Your task to perform on an android device: clear history in the chrome app Image 0: 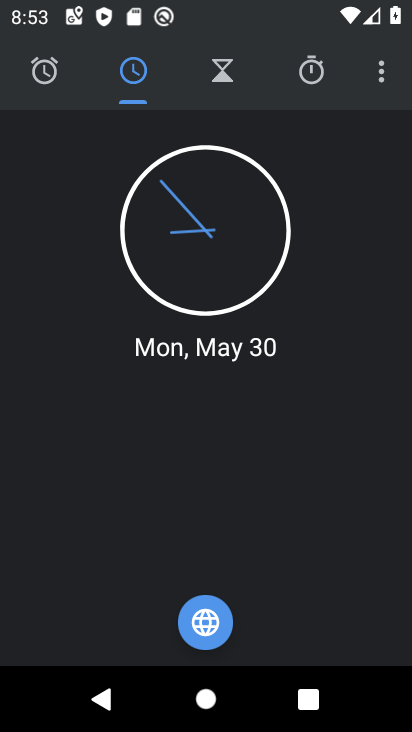
Step 0: press home button
Your task to perform on an android device: clear history in the chrome app Image 1: 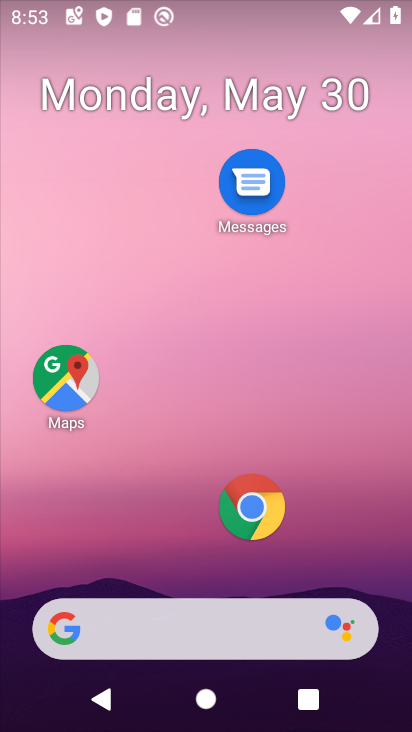
Step 1: click (258, 514)
Your task to perform on an android device: clear history in the chrome app Image 2: 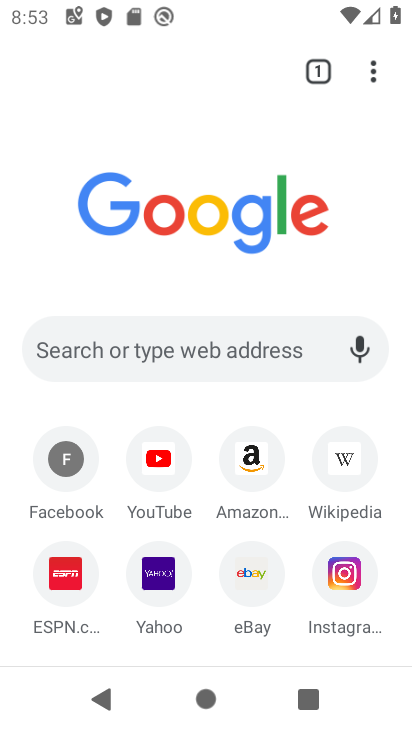
Step 2: click (380, 79)
Your task to perform on an android device: clear history in the chrome app Image 3: 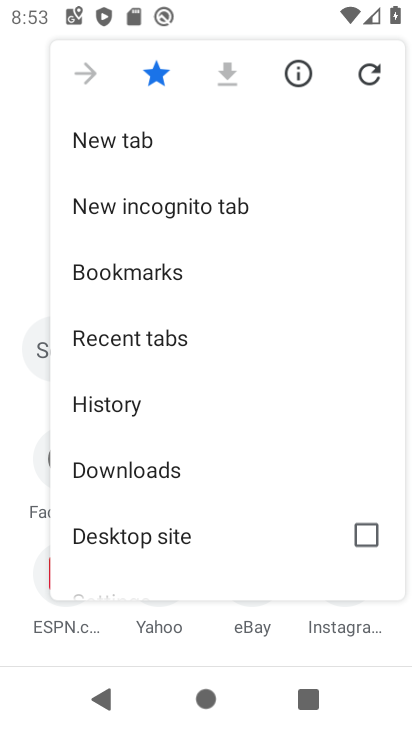
Step 3: click (125, 404)
Your task to perform on an android device: clear history in the chrome app Image 4: 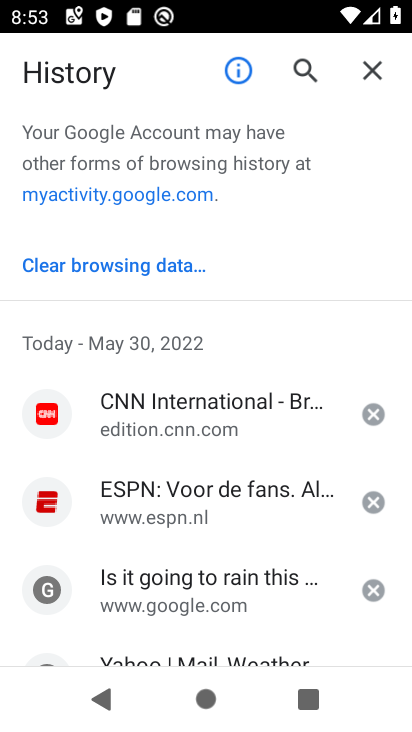
Step 4: click (126, 275)
Your task to perform on an android device: clear history in the chrome app Image 5: 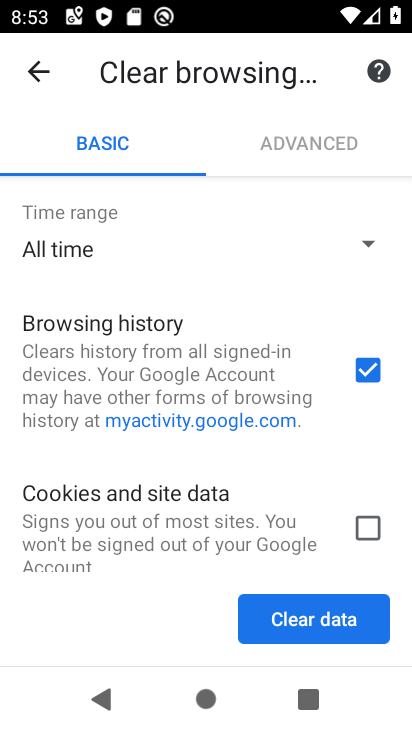
Step 5: drag from (251, 494) to (229, 292)
Your task to perform on an android device: clear history in the chrome app Image 6: 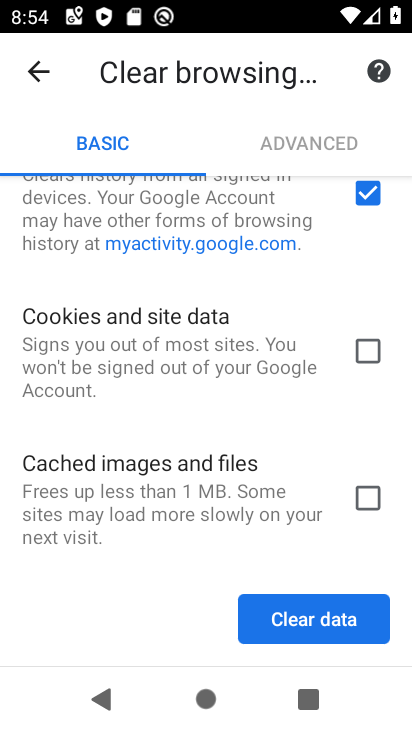
Step 6: click (371, 504)
Your task to perform on an android device: clear history in the chrome app Image 7: 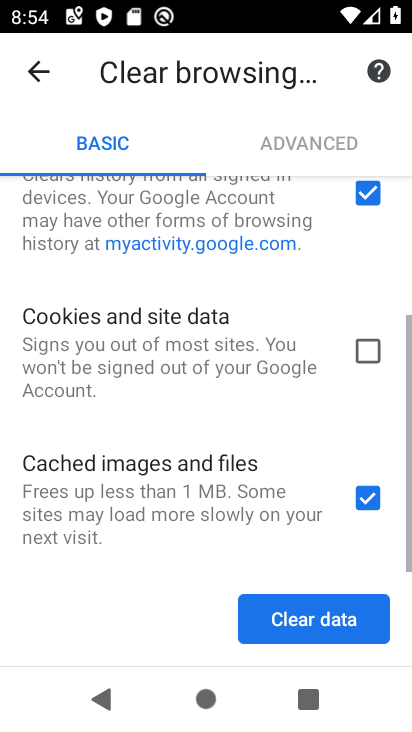
Step 7: click (352, 353)
Your task to perform on an android device: clear history in the chrome app Image 8: 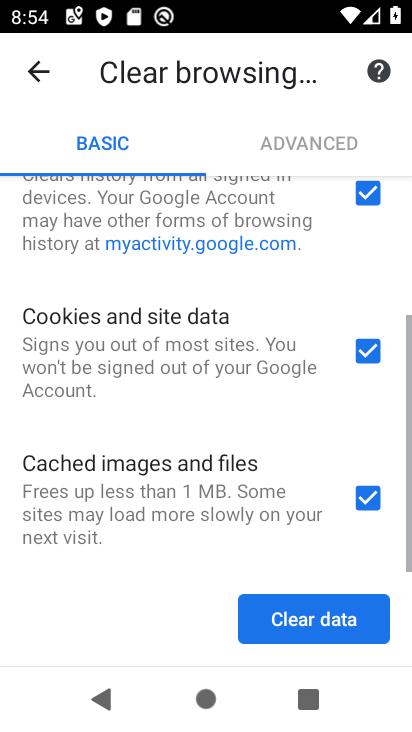
Step 8: drag from (268, 311) to (159, 679)
Your task to perform on an android device: clear history in the chrome app Image 9: 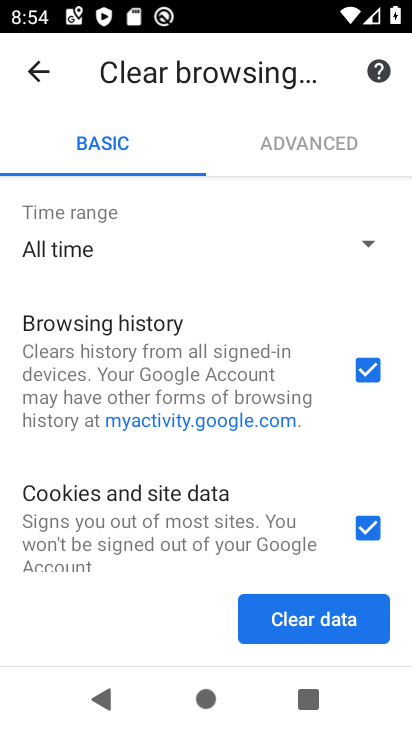
Step 9: click (309, 630)
Your task to perform on an android device: clear history in the chrome app Image 10: 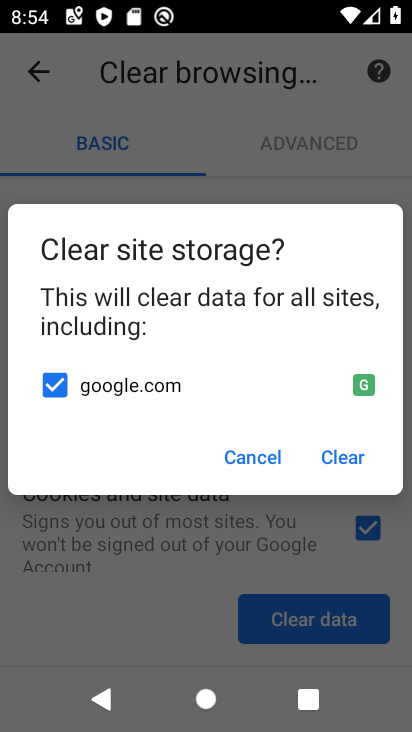
Step 10: click (342, 458)
Your task to perform on an android device: clear history in the chrome app Image 11: 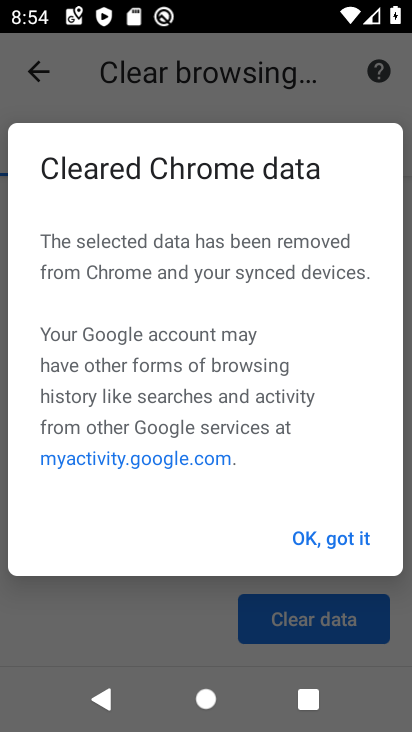
Step 11: click (354, 542)
Your task to perform on an android device: clear history in the chrome app Image 12: 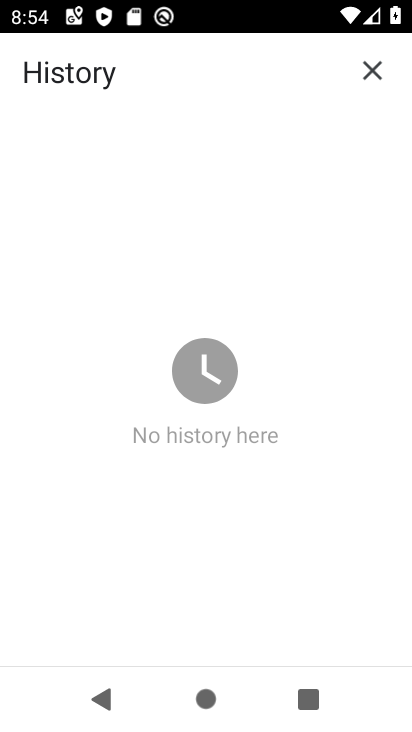
Step 12: task complete